Your task to perform on an android device: Open calendar and show me the fourth week of next month Image 0: 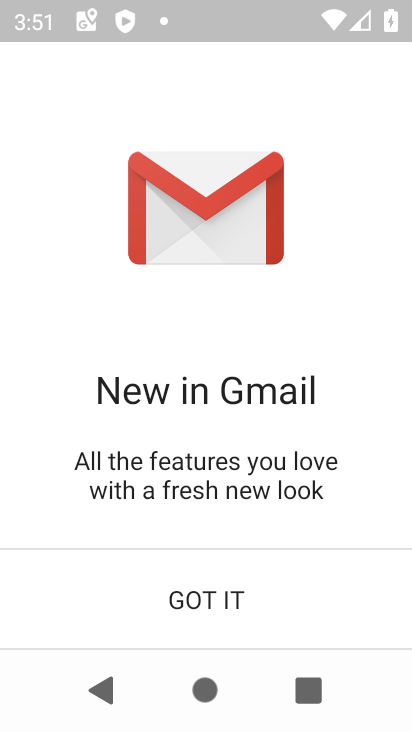
Step 0: click (320, 567)
Your task to perform on an android device: Open calendar and show me the fourth week of next month Image 1: 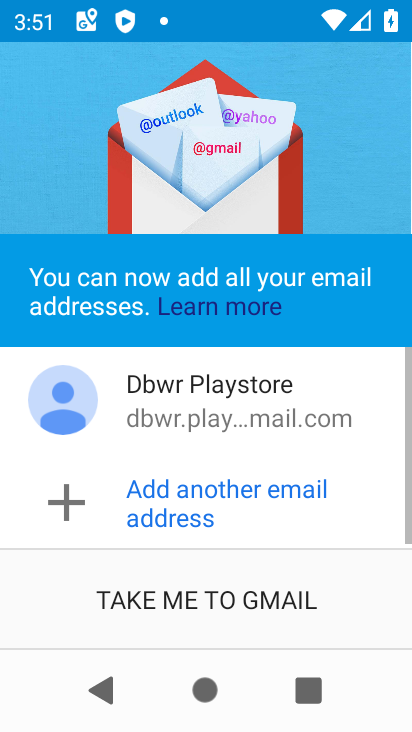
Step 1: click (212, 603)
Your task to perform on an android device: Open calendar and show me the fourth week of next month Image 2: 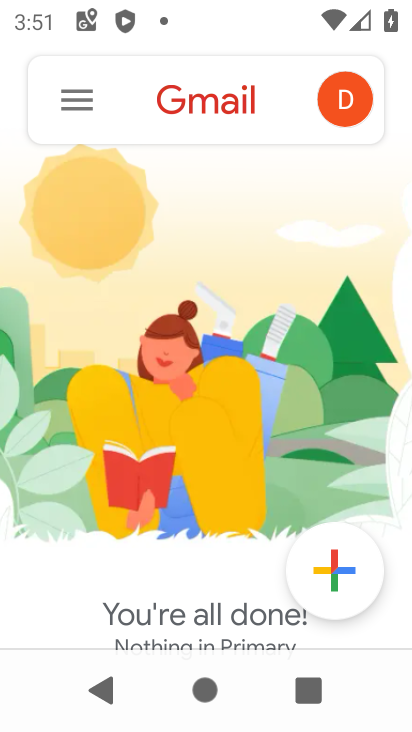
Step 2: task complete